Your task to perform on an android device: Open Wikipedia Image 0: 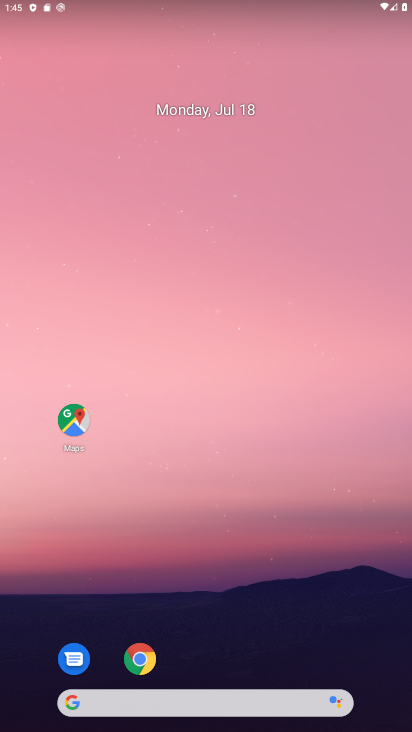
Step 0: click (146, 657)
Your task to perform on an android device: Open Wikipedia Image 1: 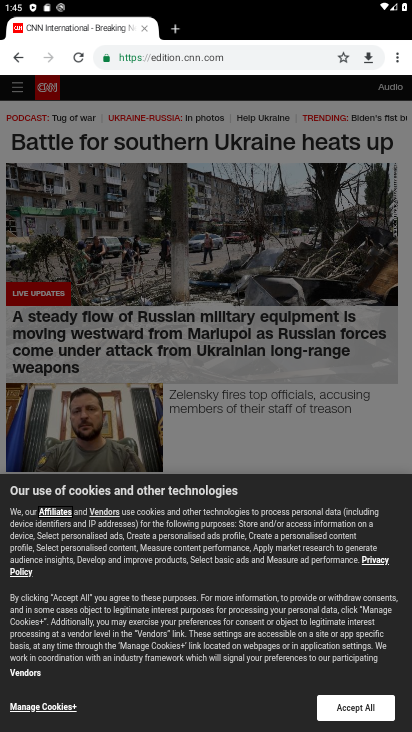
Step 1: click (174, 28)
Your task to perform on an android device: Open Wikipedia Image 2: 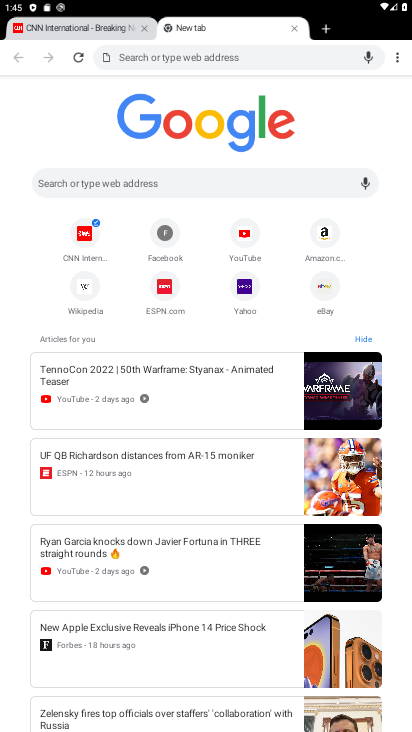
Step 2: click (92, 285)
Your task to perform on an android device: Open Wikipedia Image 3: 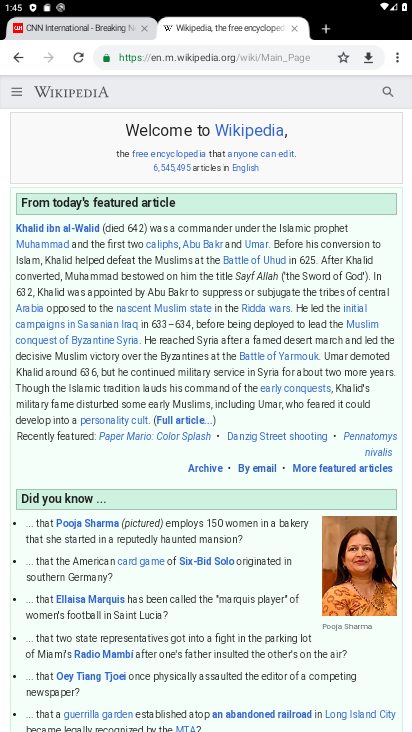
Step 3: task complete